Your task to perform on an android device: Open eBay Image 0: 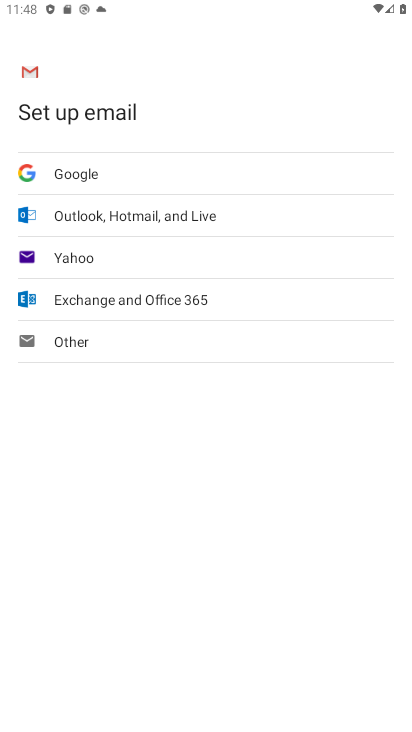
Step 0: press home button
Your task to perform on an android device: Open eBay Image 1: 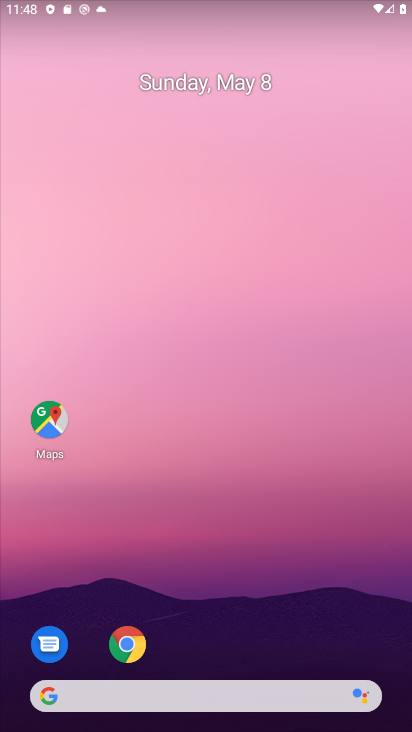
Step 1: click (137, 637)
Your task to perform on an android device: Open eBay Image 2: 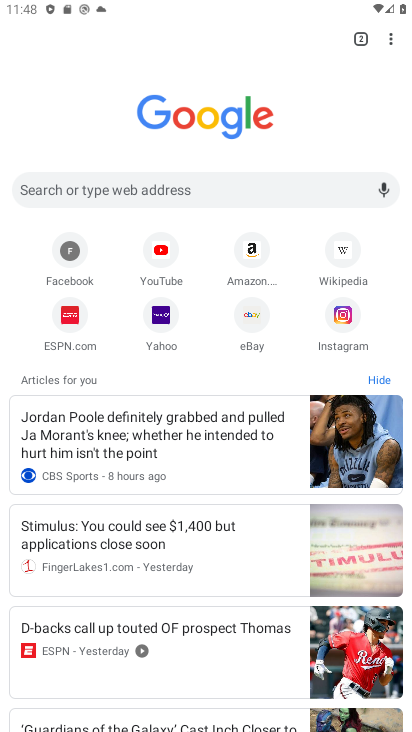
Step 2: click (248, 317)
Your task to perform on an android device: Open eBay Image 3: 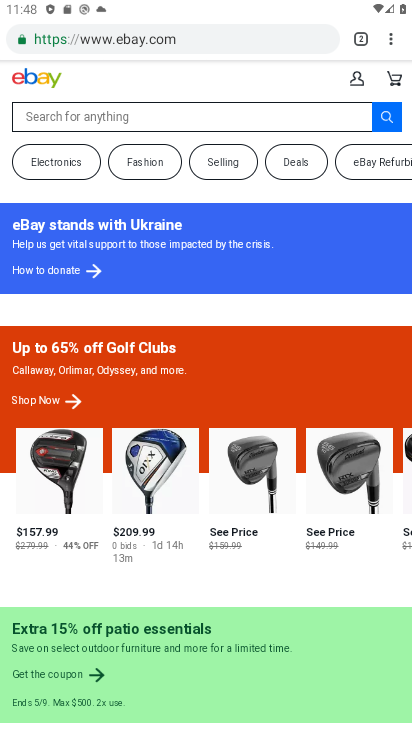
Step 3: task complete